Your task to perform on an android device: Open Chrome and go to settings Image 0: 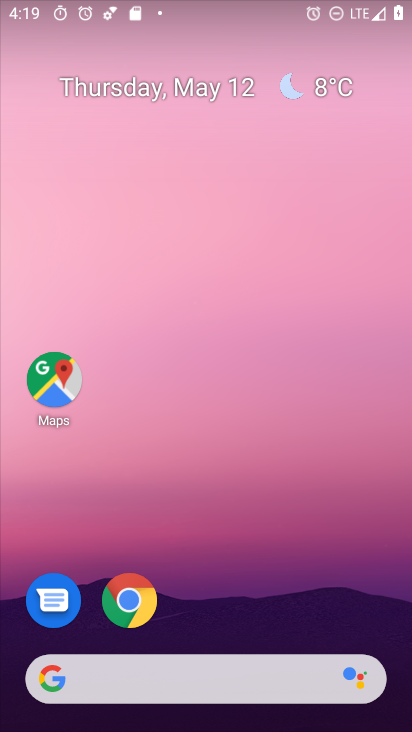
Step 0: click (134, 602)
Your task to perform on an android device: Open Chrome and go to settings Image 1: 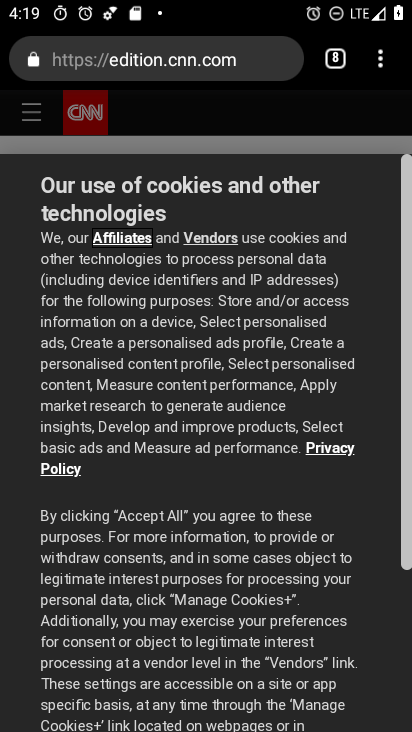
Step 1: click (383, 65)
Your task to perform on an android device: Open Chrome and go to settings Image 2: 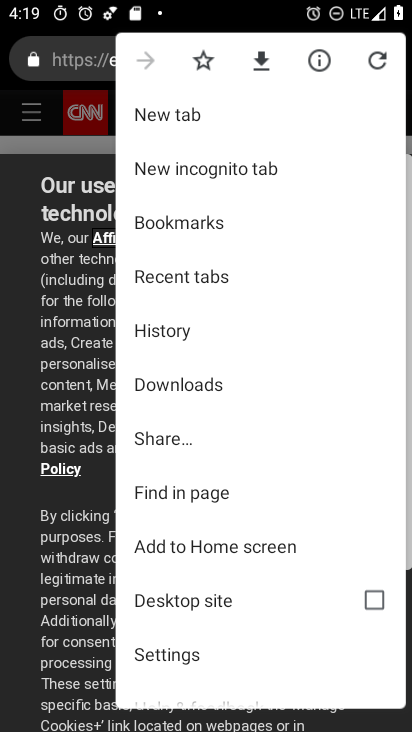
Step 2: click (173, 653)
Your task to perform on an android device: Open Chrome and go to settings Image 3: 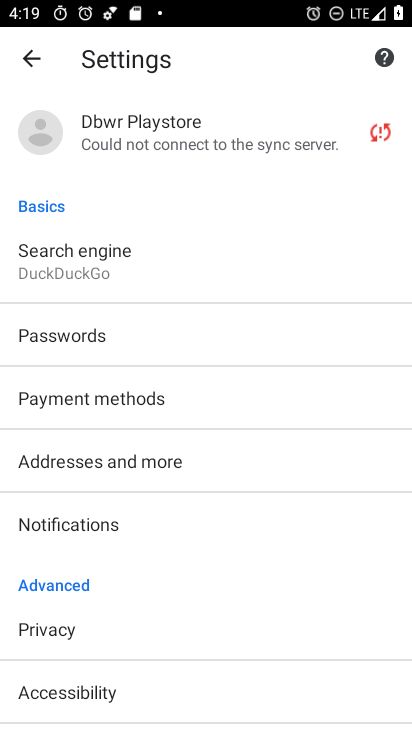
Step 3: task complete